Your task to perform on an android device: check data usage Image 0: 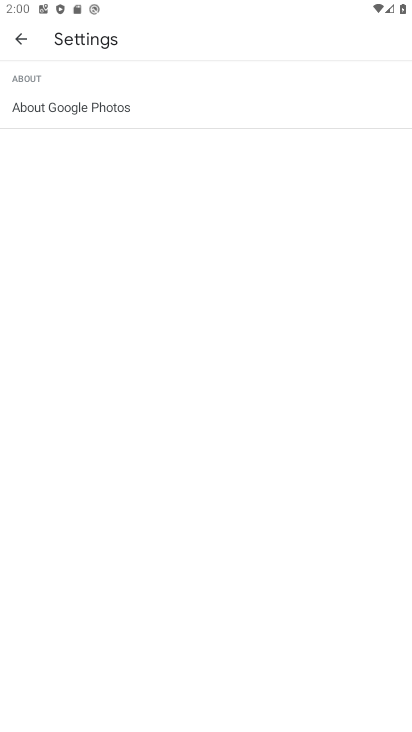
Step 0: press home button
Your task to perform on an android device: check data usage Image 1: 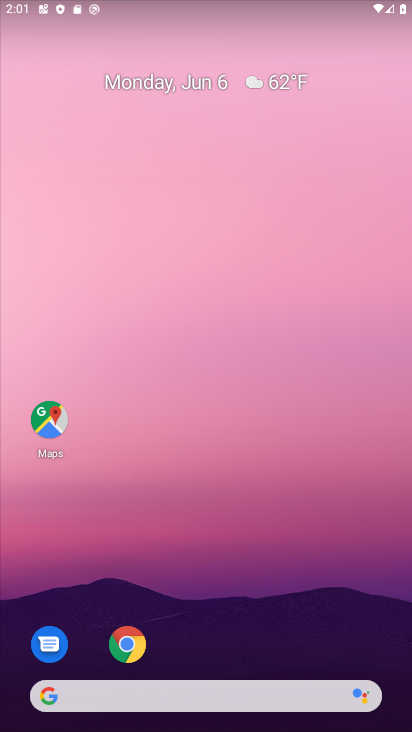
Step 1: drag from (170, 723) to (186, 117)
Your task to perform on an android device: check data usage Image 2: 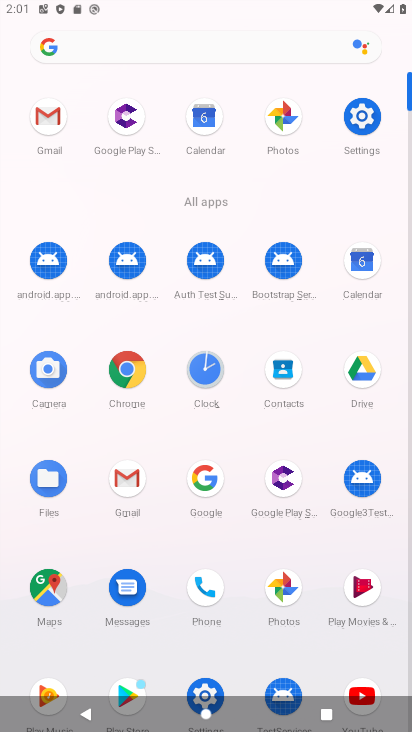
Step 2: click (373, 126)
Your task to perform on an android device: check data usage Image 3: 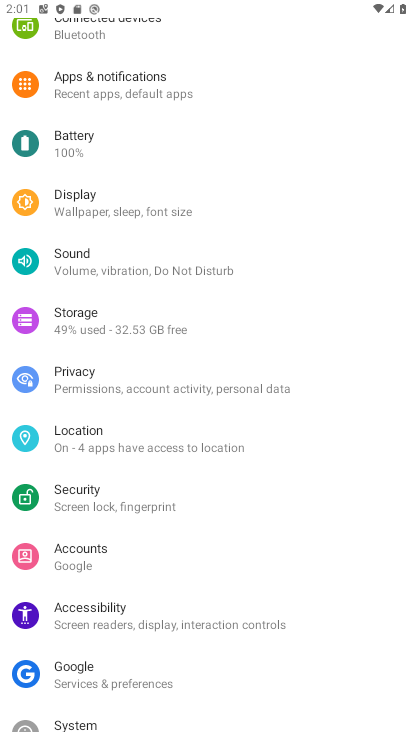
Step 3: drag from (177, 58) to (125, 466)
Your task to perform on an android device: check data usage Image 4: 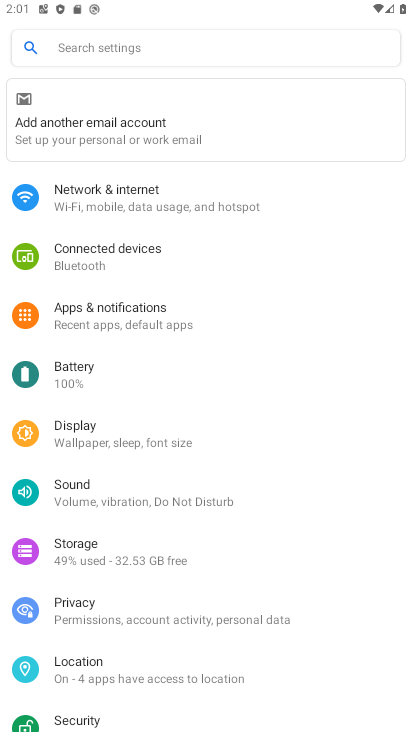
Step 4: click (128, 219)
Your task to perform on an android device: check data usage Image 5: 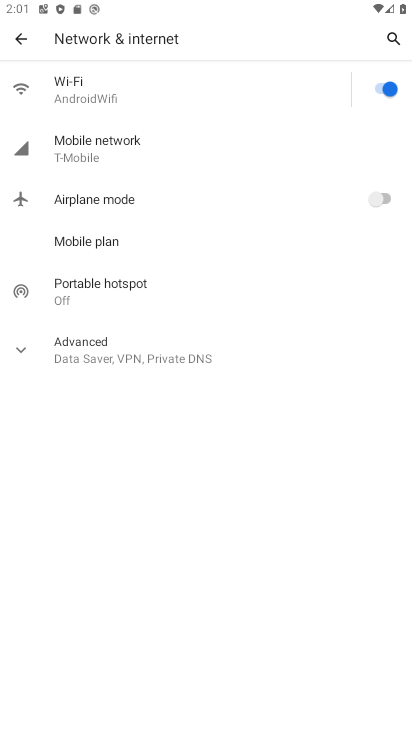
Step 5: click (153, 133)
Your task to perform on an android device: check data usage Image 6: 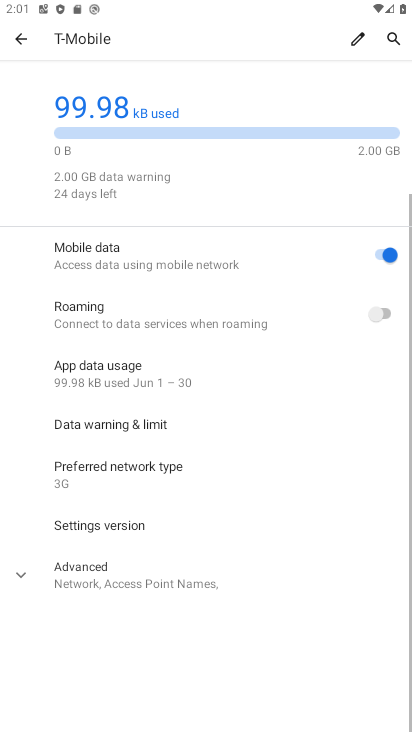
Step 6: click (257, 153)
Your task to perform on an android device: check data usage Image 7: 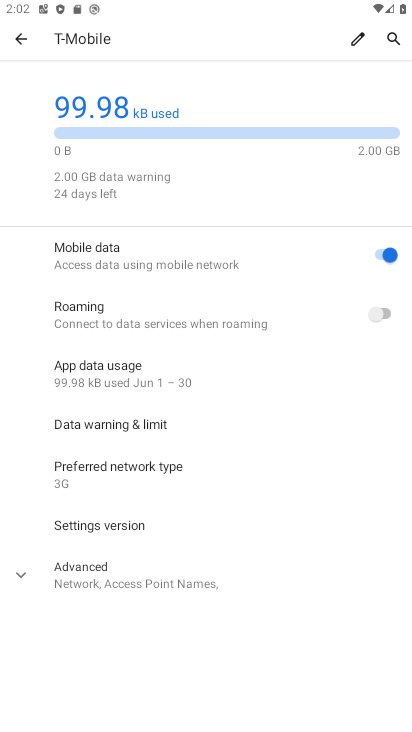
Step 7: task complete